Your task to perform on an android device: Search for dell xps on target.com, select the first entry, and add it to the cart. Image 0: 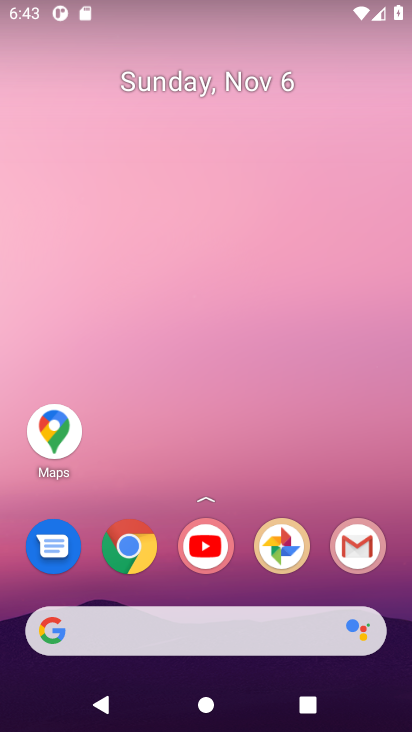
Step 0: click (131, 548)
Your task to perform on an android device: Search for dell xps on target.com, select the first entry, and add it to the cart. Image 1: 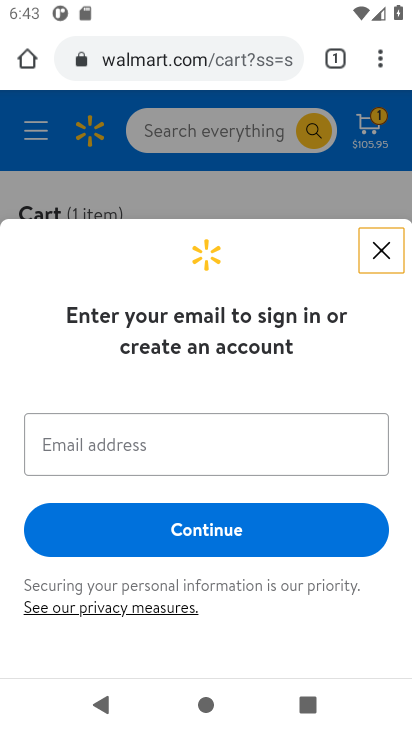
Step 1: click (178, 62)
Your task to perform on an android device: Search for dell xps on target.com, select the first entry, and add it to the cart. Image 2: 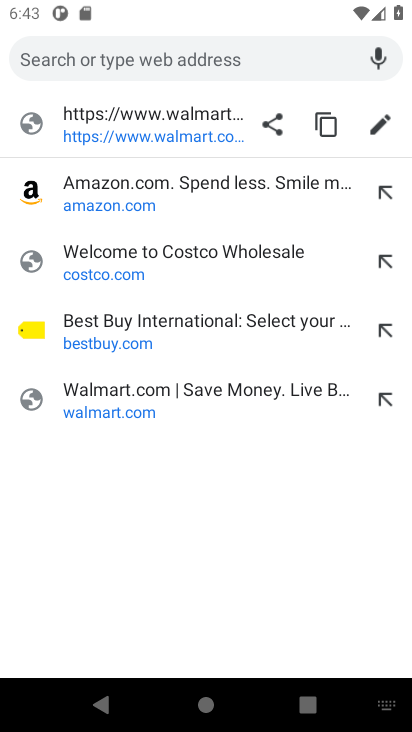
Step 2: type "target.com"
Your task to perform on an android device: Search for dell xps on target.com, select the first entry, and add it to the cart. Image 3: 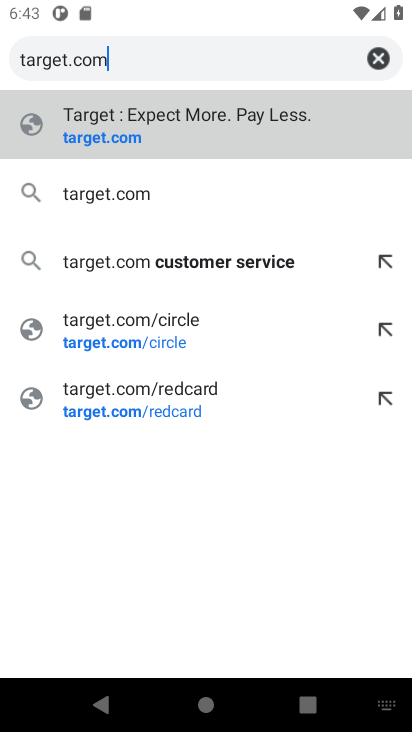
Step 3: click (92, 143)
Your task to perform on an android device: Search for dell xps on target.com, select the first entry, and add it to the cart. Image 4: 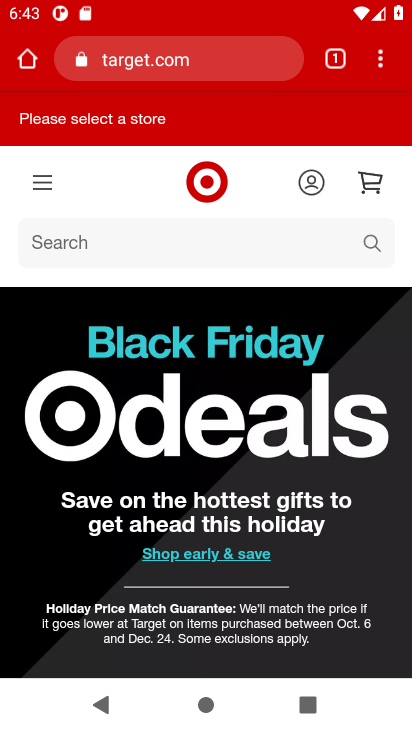
Step 4: click (366, 240)
Your task to perform on an android device: Search for dell xps on target.com, select the first entry, and add it to the cart. Image 5: 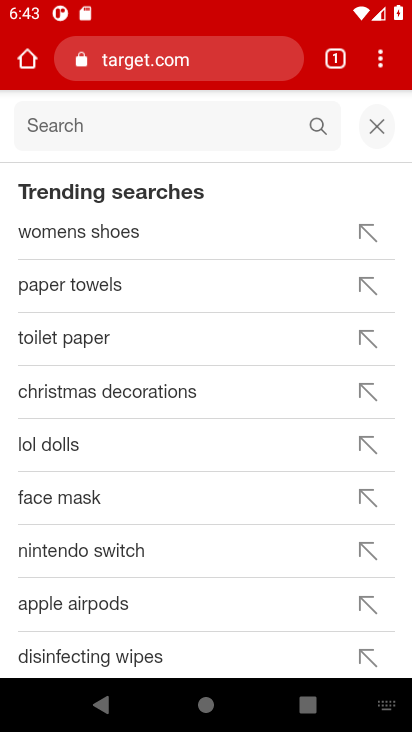
Step 5: type "dell xps"
Your task to perform on an android device: Search for dell xps on target.com, select the first entry, and add it to the cart. Image 6: 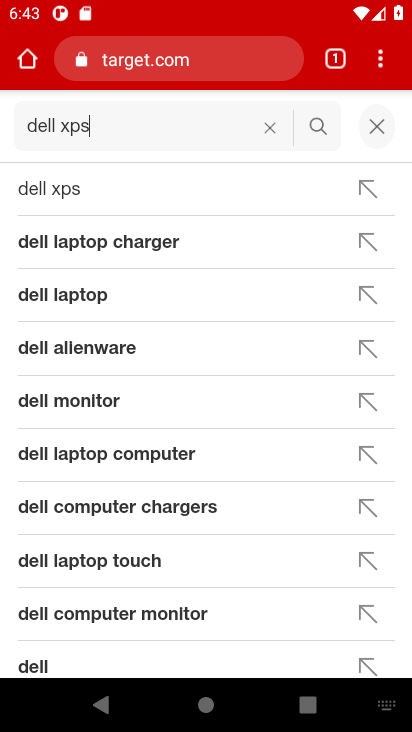
Step 6: click (48, 195)
Your task to perform on an android device: Search for dell xps on target.com, select the first entry, and add it to the cart. Image 7: 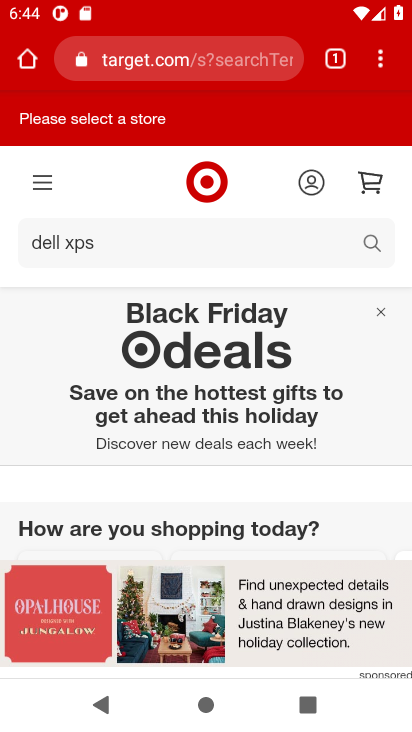
Step 7: task complete